Your task to perform on an android device: open a new tab in the chrome app Image 0: 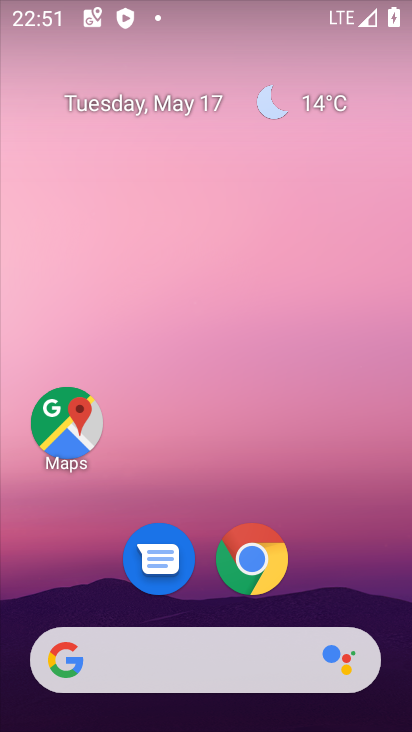
Step 0: click (249, 557)
Your task to perform on an android device: open a new tab in the chrome app Image 1: 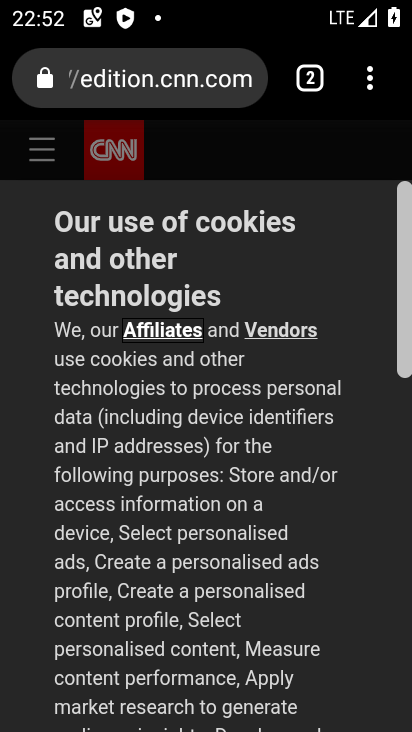
Step 1: task complete